Your task to perform on an android device: turn off improve location accuracy Image 0: 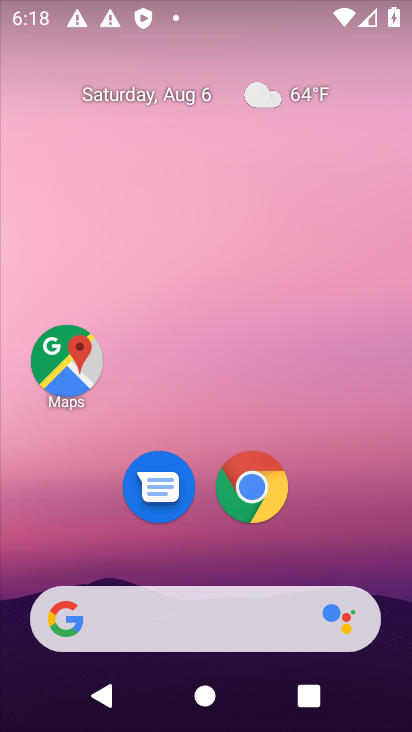
Step 0: drag from (194, 562) to (277, 57)
Your task to perform on an android device: turn off improve location accuracy Image 1: 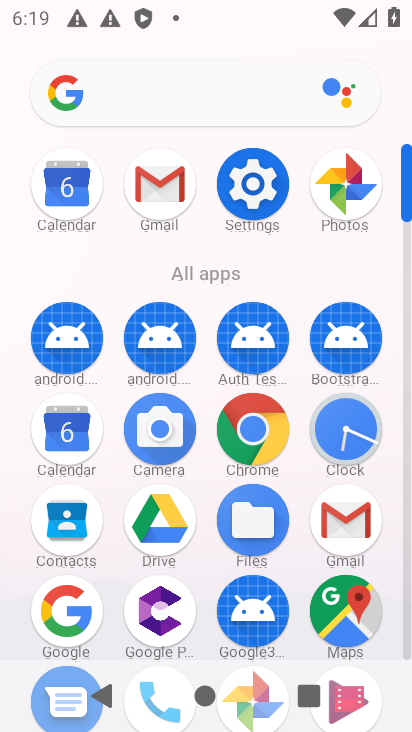
Step 1: click (247, 188)
Your task to perform on an android device: turn off improve location accuracy Image 2: 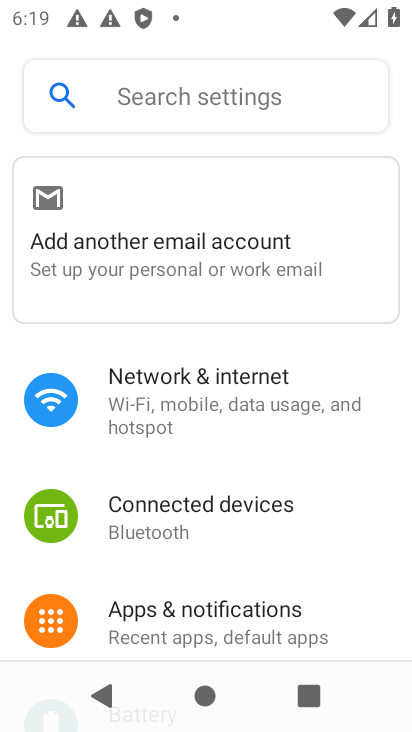
Step 2: drag from (194, 597) to (330, 4)
Your task to perform on an android device: turn off improve location accuracy Image 3: 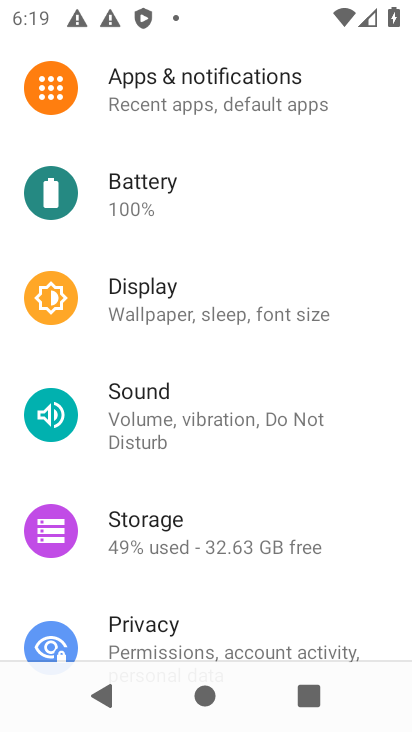
Step 3: drag from (255, 574) to (354, 110)
Your task to perform on an android device: turn off improve location accuracy Image 4: 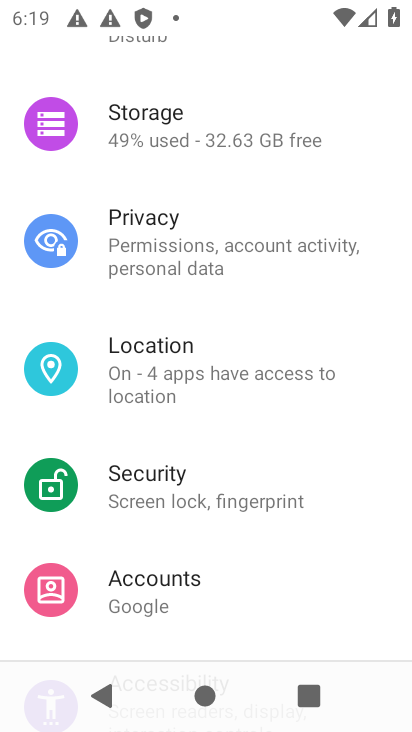
Step 4: click (213, 365)
Your task to perform on an android device: turn off improve location accuracy Image 5: 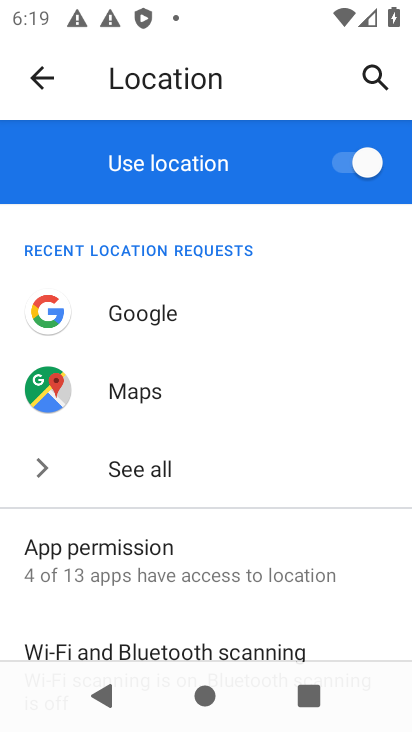
Step 5: drag from (189, 633) to (294, 233)
Your task to perform on an android device: turn off improve location accuracy Image 6: 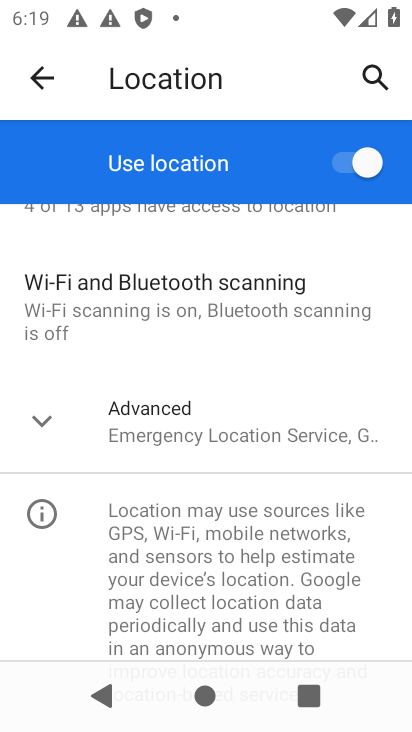
Step 6: click (208, 442)
Your task to perform on an android device: turn off improve location accuracy Image 7: 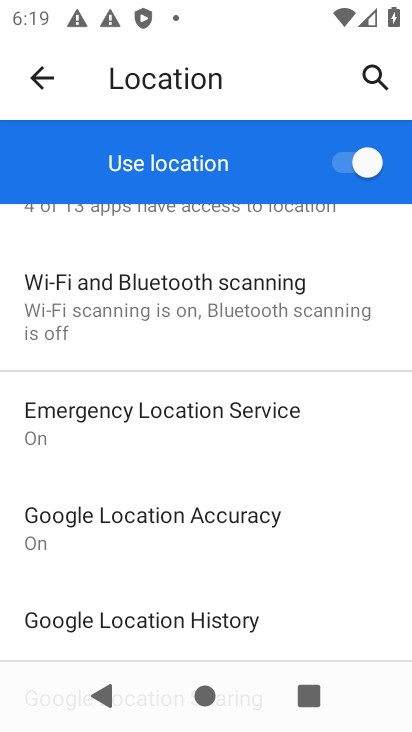
Step 7: click (204, 520)
Your task to perform on an android device: turn off improve location accuracy Image 8: 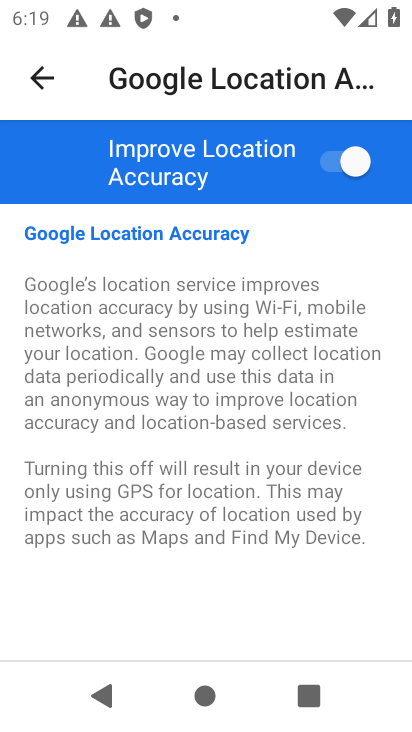
Step 8: click (355, 153)
Your task to perform on an android device: turn off improve location accuracy Image 9: 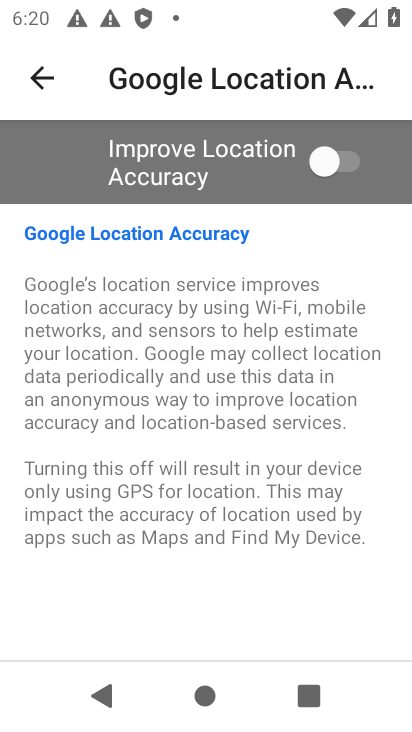
Step 9: task complete